Your task to perform on an android device: change notifications settings Image 0: 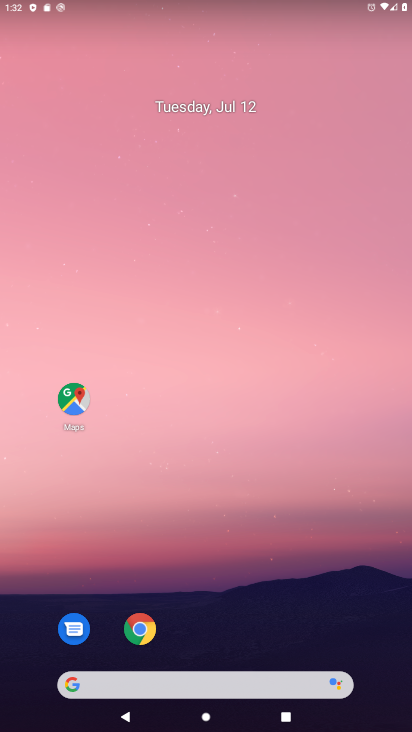
Step 0: drag from (287, 617) to (321, 3)
Your task to perform on an android device: change notifications settings Image 1: 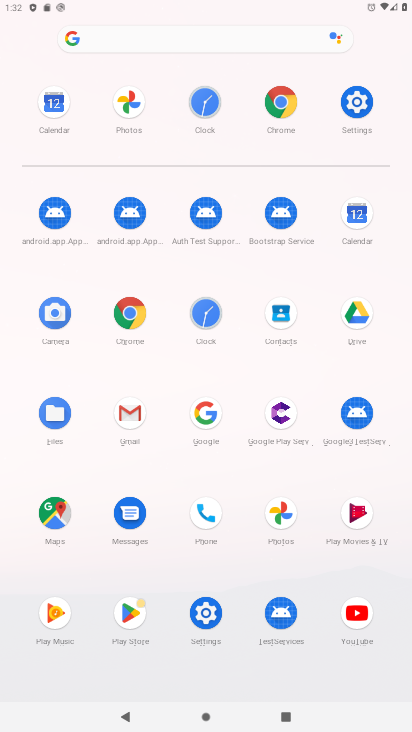
Step 1: click (344, 105)
Your task to perform on an android device: change notifications settings Image 2: 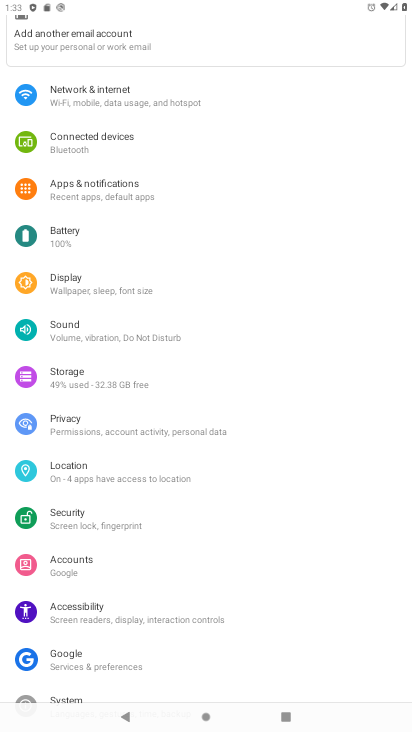
Step 2: click (117, 185)
Your task to perform on an android device: change notifications settings Image 3: 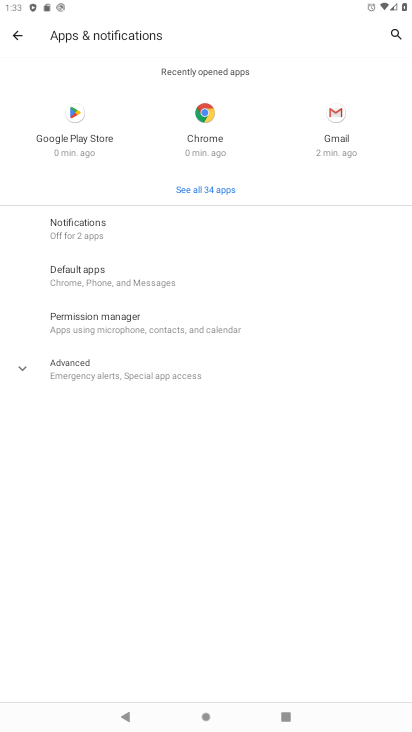
Step 3: click (105, 231)
Your task to perform on an android device: change notifications settings Image 4: 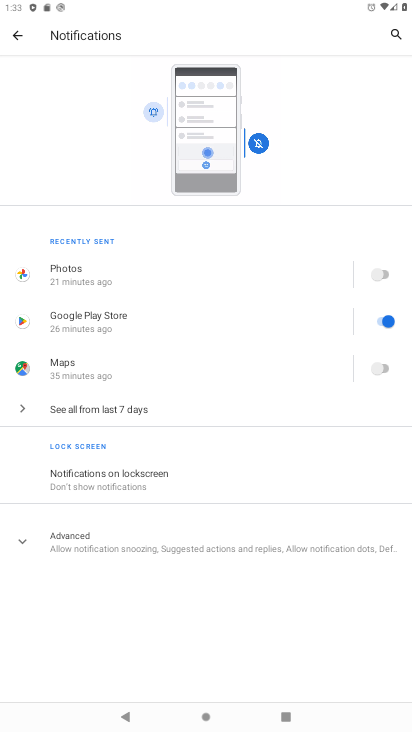
Step 4: click (384, 326)
Your task to perform on an android device: change notifications settings Image 5: 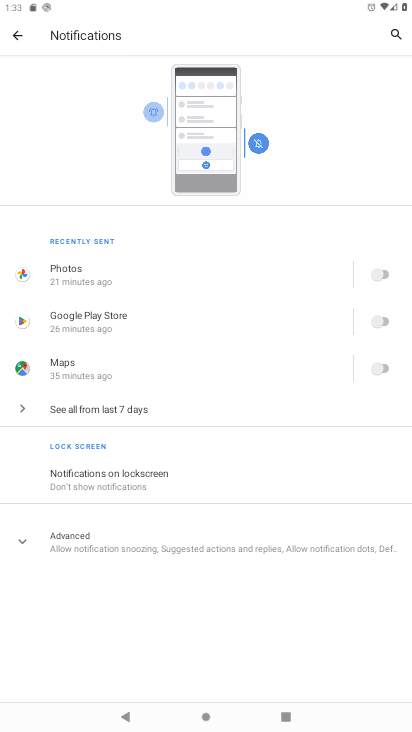
Step 5: task complete